Your task to perform on an android device: open app "PUBG MOBILE" (install if not already installed) and go to login screen Image 0: 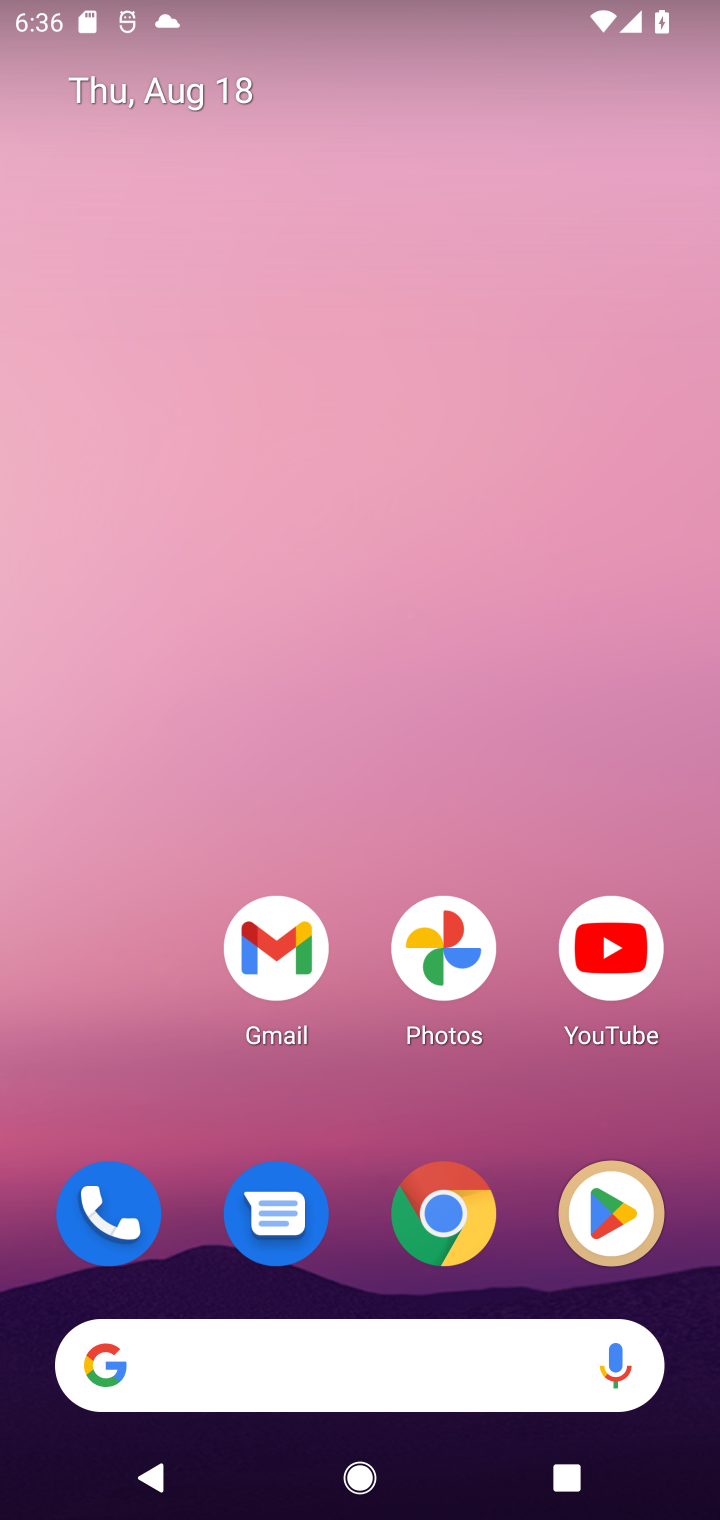
Step 0: press home button
Your task to perform on an android device: open app "PUBG MOBILE" (install if not already installed) and go to login screen Image 1: 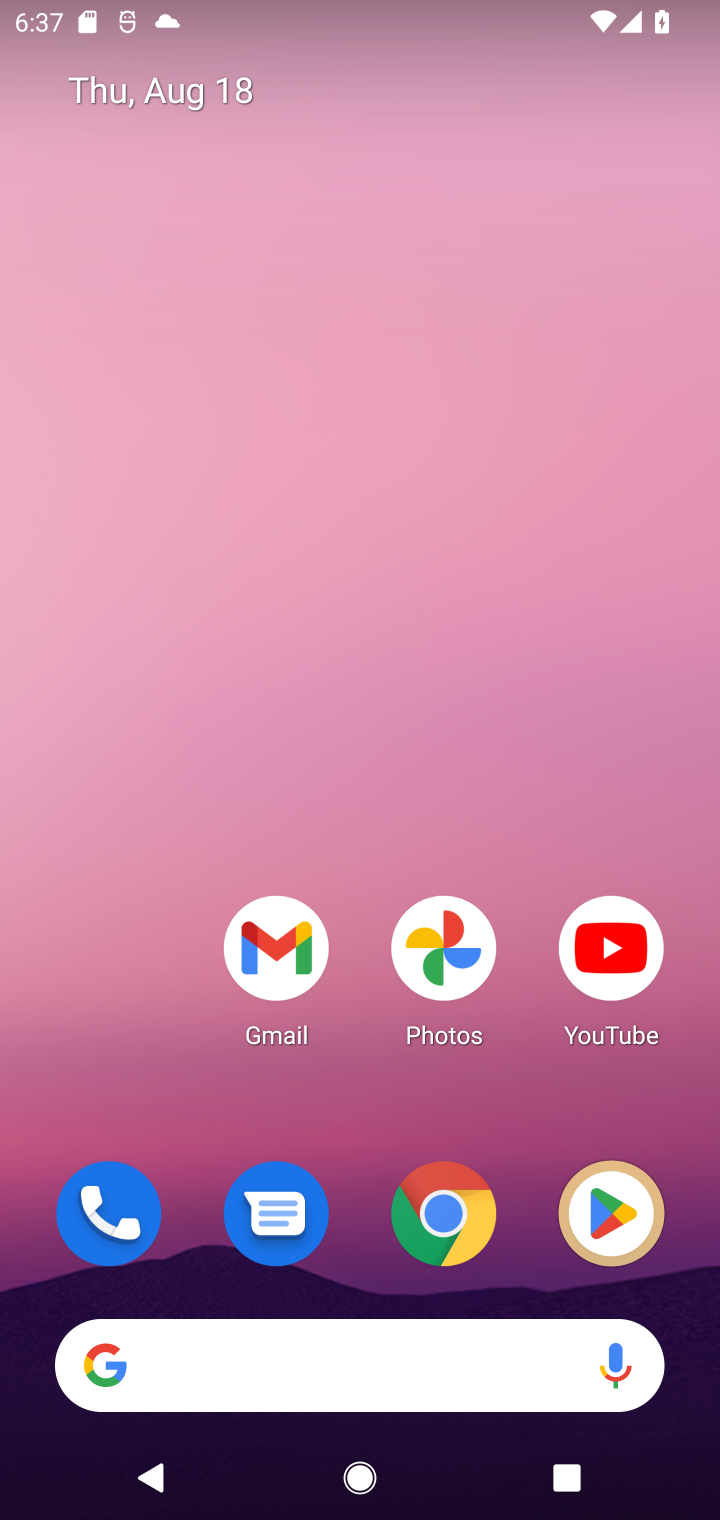
Step 1: click (603, 1206)
Your task to perform on an android device: open app "PUBG MOBILE" (install if not already installed) and go to login screen Image 2: 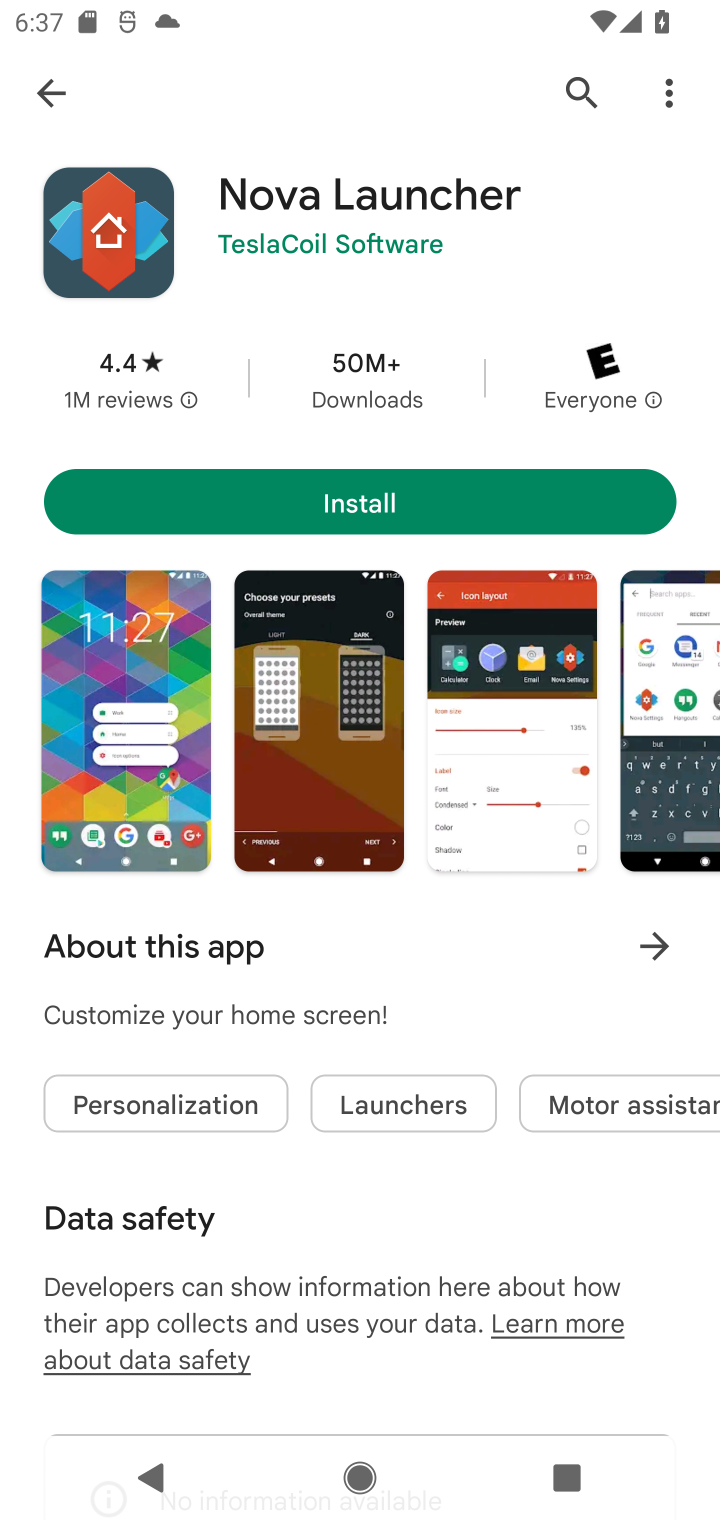
Step 2: click (51, 85)
Your task to perform on an android device: open app "PUBG MOBILE" (install if not already installed) and go to login screen Image 3: 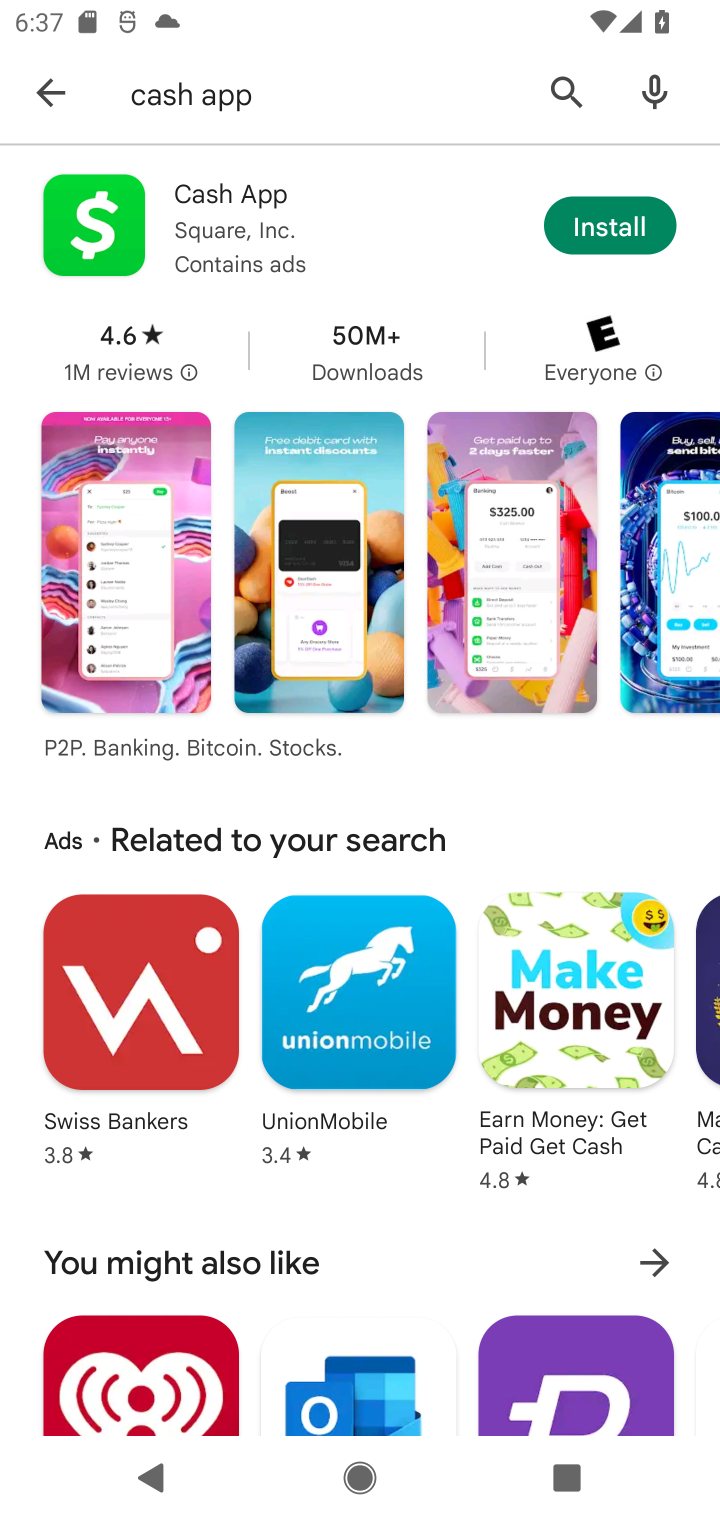
Step 3: click (563, 82)
Your task to perform on an android device: open app "PUBG MOBILE" (install if not already installed) and go to login screen Image 4: 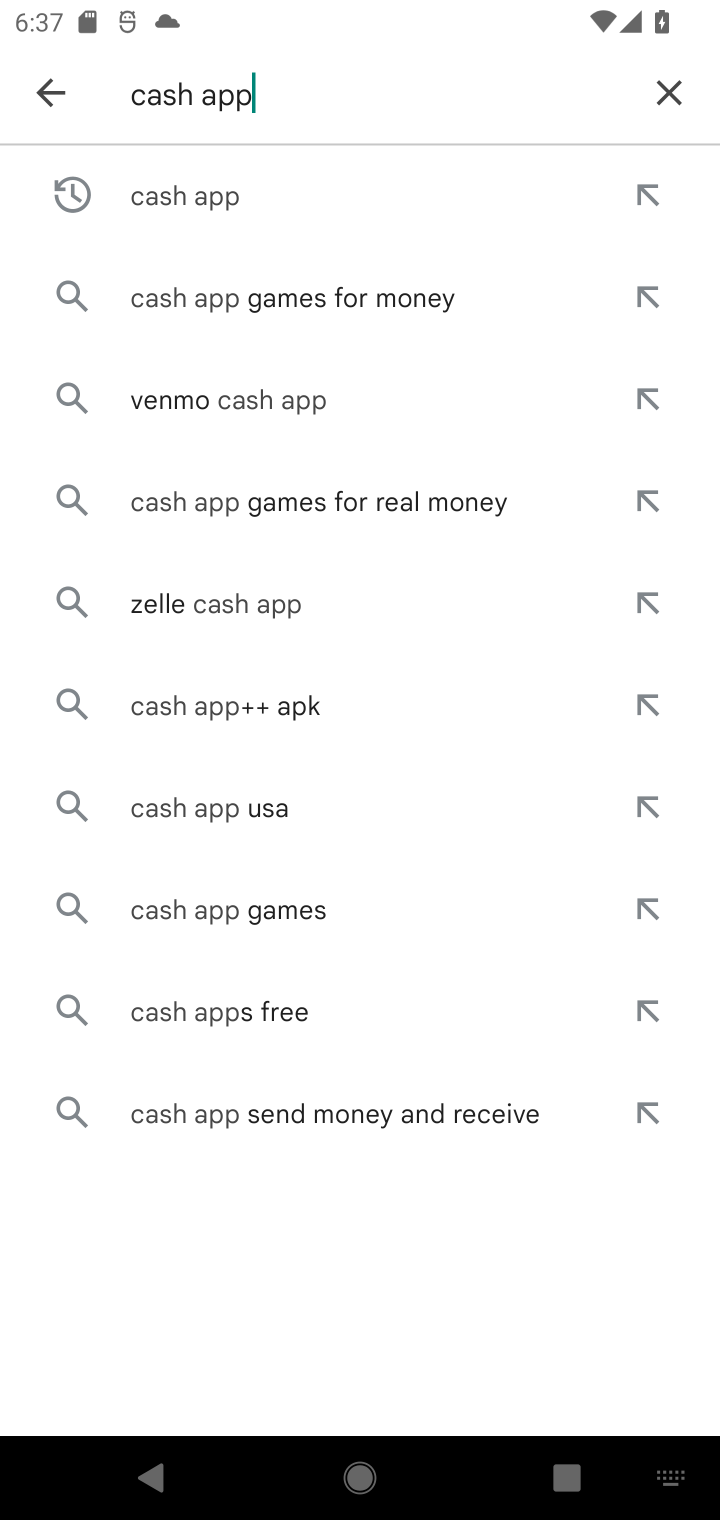
Step 4: click (667, 94)
Your task to perform on an android device: open app "PUBG MOBILE" (install if not already installed) and go to login screen Image 5: 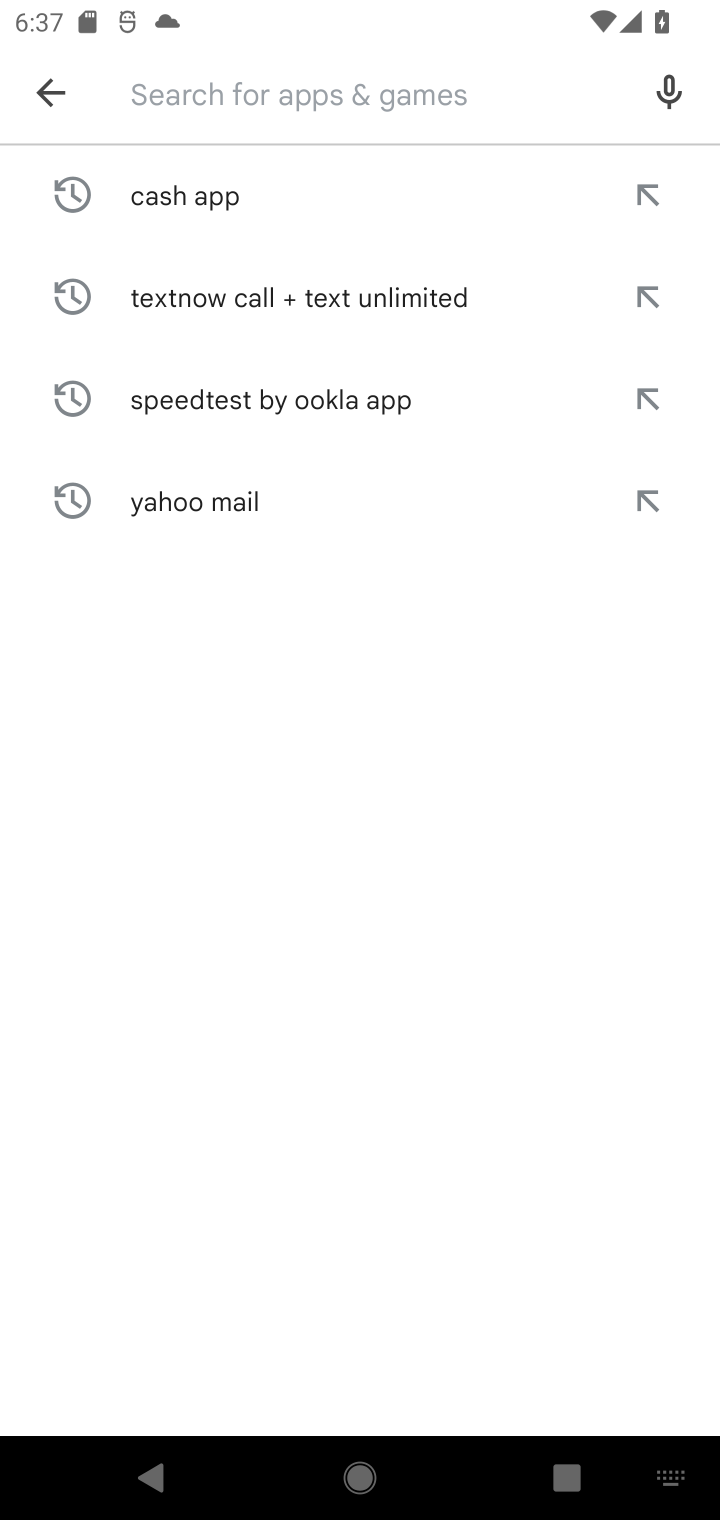
Step 5: type "PUBG MOBILE"
Your task to perform on an android device: open app "PUBG MOBILE" (install if not already installed) and go to login screen Image 6: 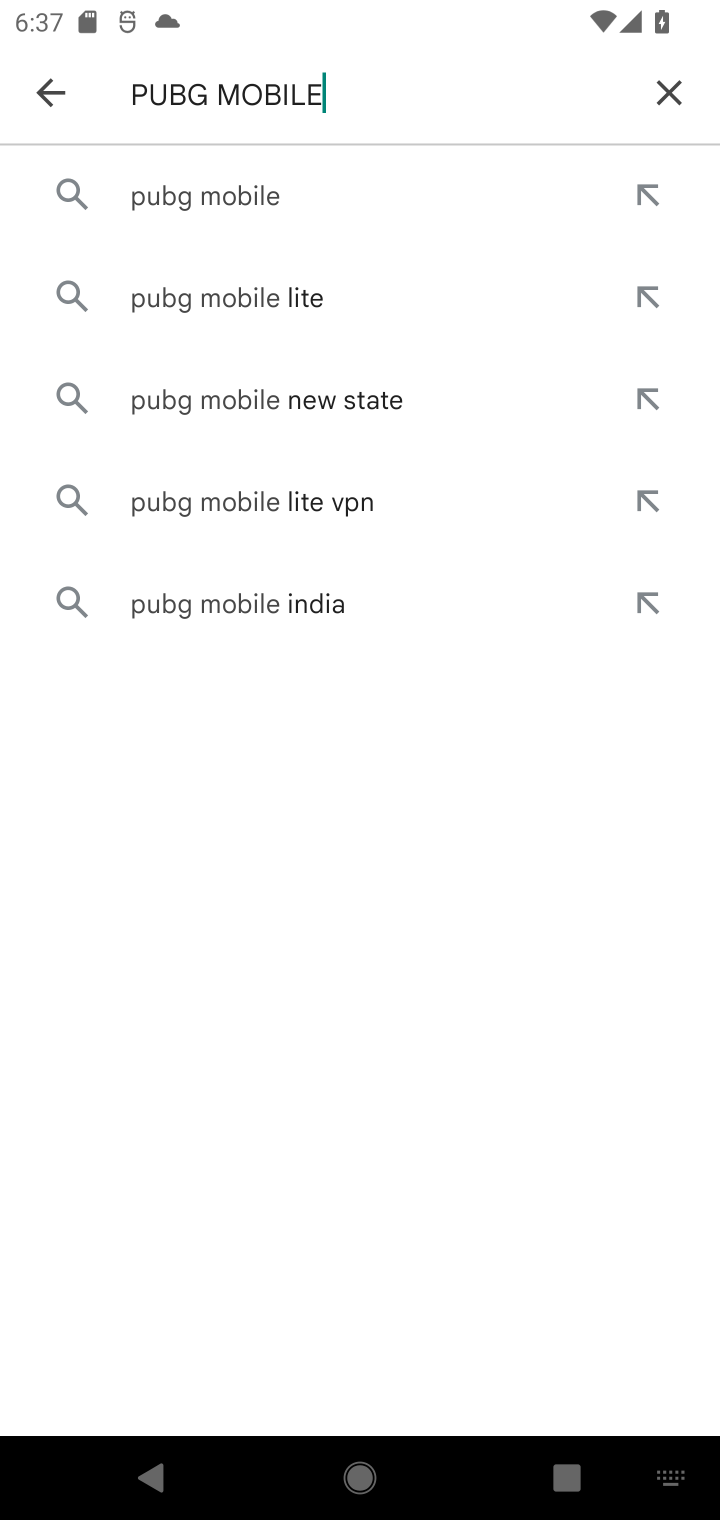
Step 6: click (303, 193)
Your task to perform on an android device: open app "PUBG MOBILE" (install if not already installed) and go to login screen Image 7: 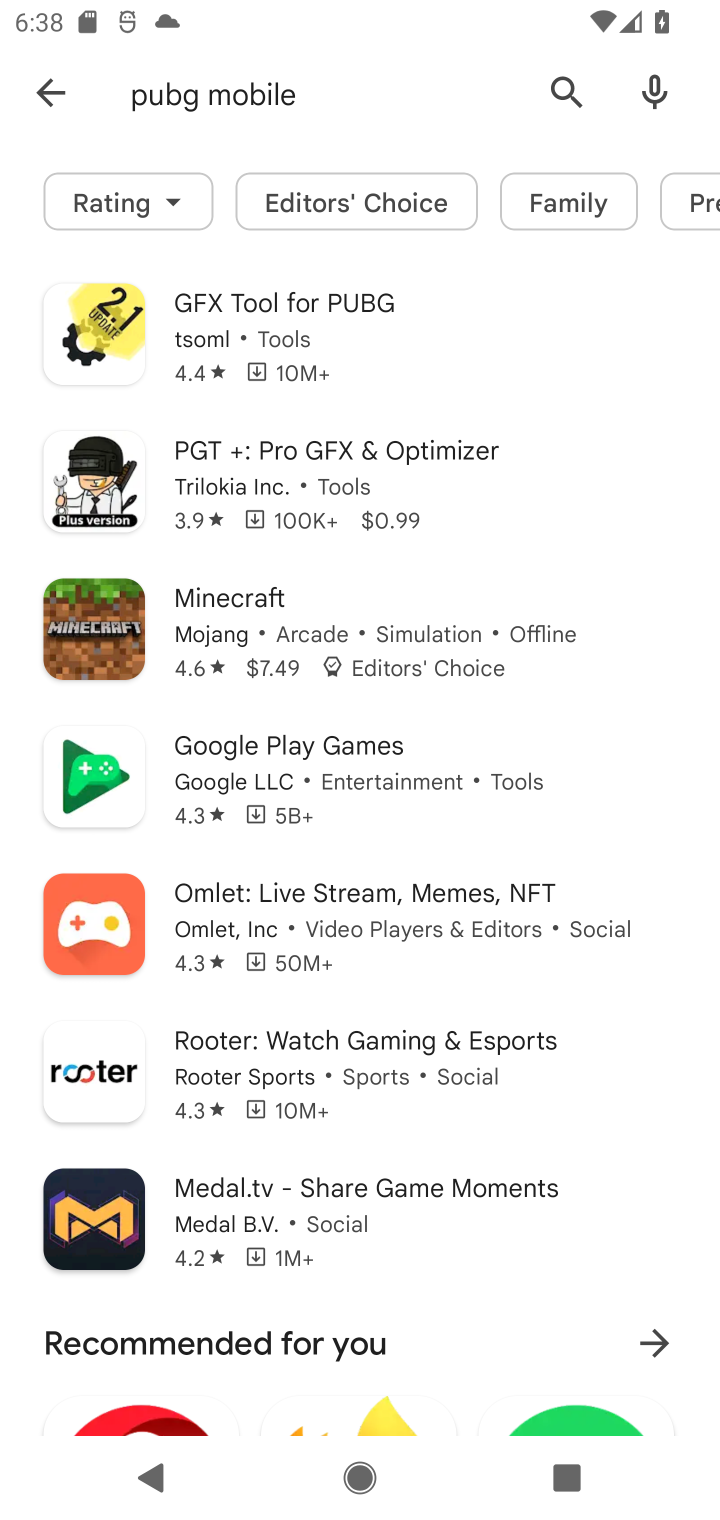
Step 7: task complete